Your task to perform on an android device: Search for Italian restaurants on Maps Image 0: 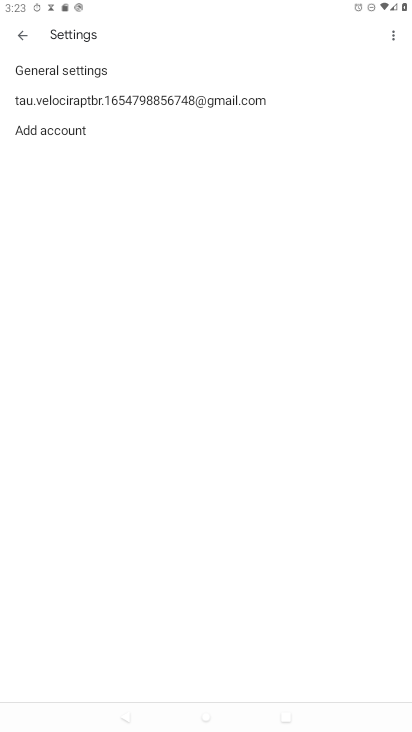
Step 0: press home button
Your task to perform on an android device: Search for Italian restaurants on Maps Image 1: 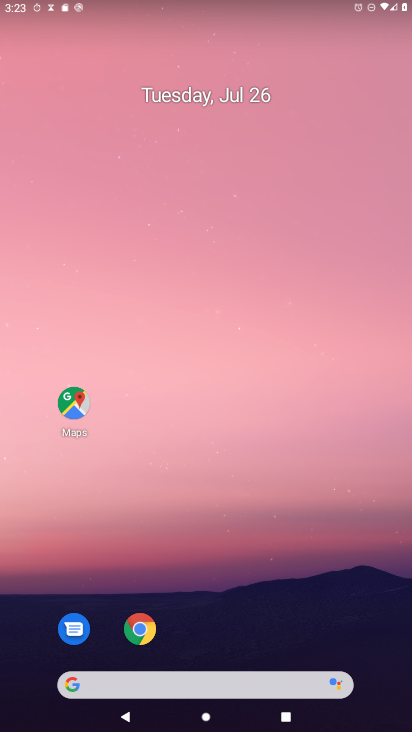
Step 1: drag from (239, 690) to (304, 3)
Your task to perform on an android device: Search for Italian restaurants on Maps Image 2: 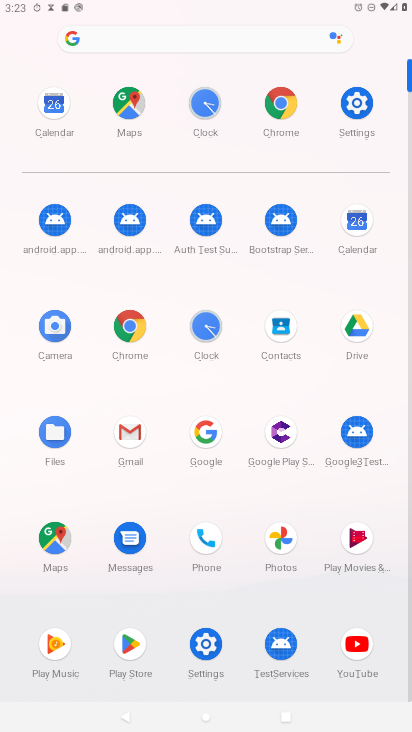
Step 2: click (53, 530)
Your task to perform on an android device: Search for Italian restaurants on Maps Image 3: 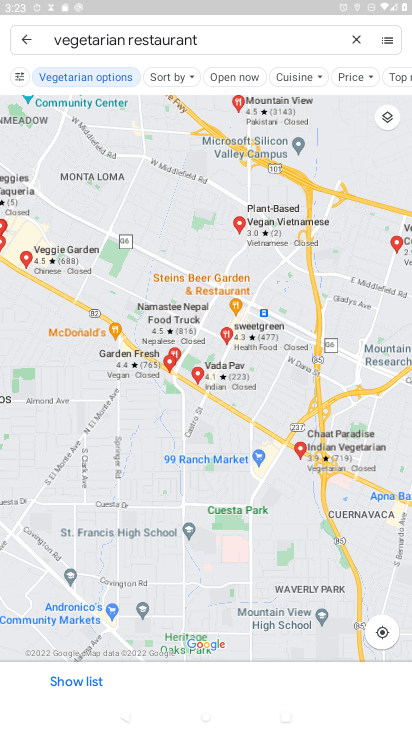
Step 3: click (356, 41)
Your task to perform on an android device: Search for Italian restaurants on Maps Image 4: 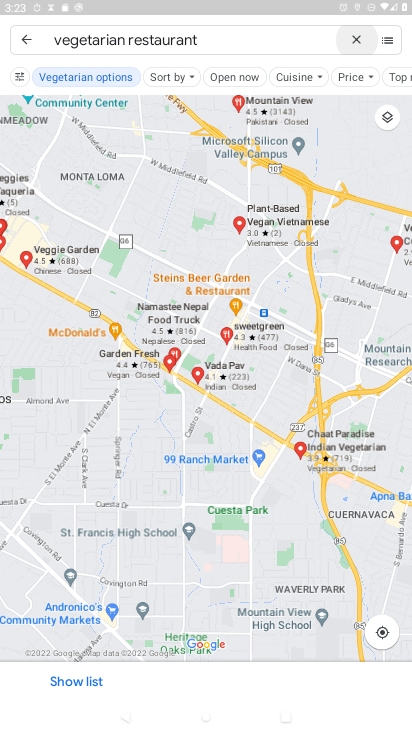
Step 4: click (279, 43)
Your task to perform on an android device: Search for Italian restaurants on Maps Image 5: 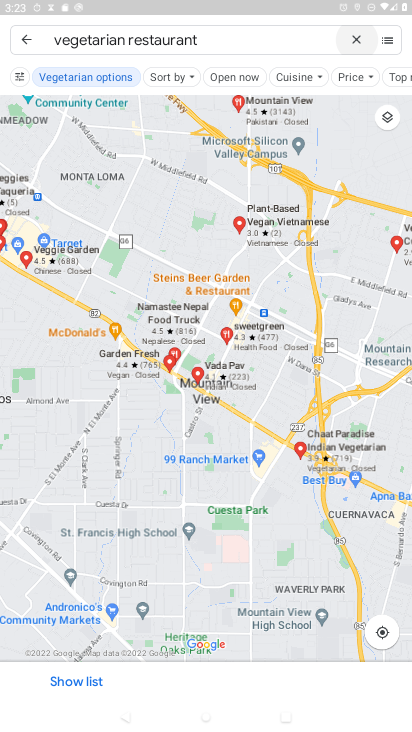
Step 5: click (279, 43)
Your task to perform on an android device: Search for Italian restaurants on Maps Image 6: 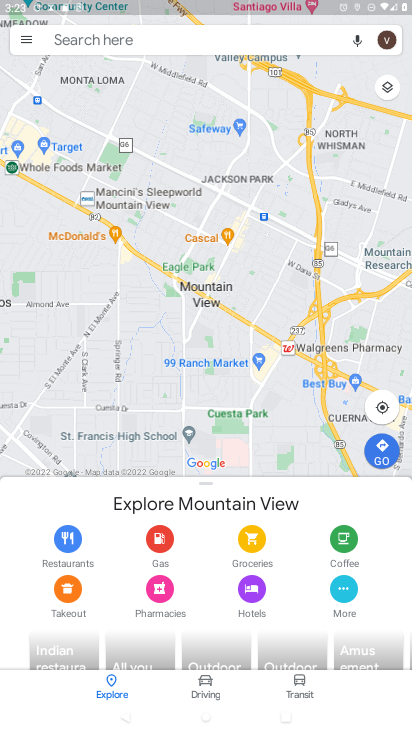
Step 6: click (279, 43)
Your task to perform on an android device: Search for Italian restaurants on Maps Image 7: 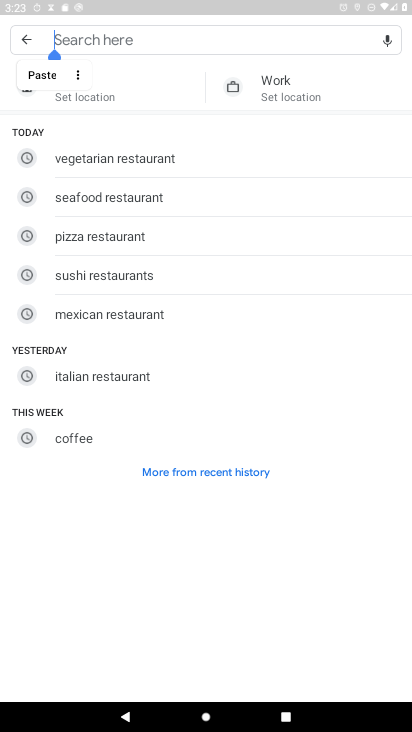
Step 7: click (102, 376)
Your task to perform on an android device: Search for Italian restaurants on Maps Image 8: 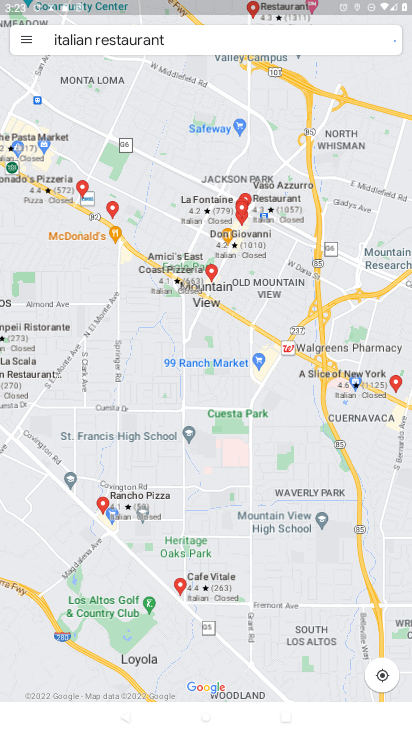
Step 8: task complete